Your task to perform on an android device: turn on wifi Image 0: 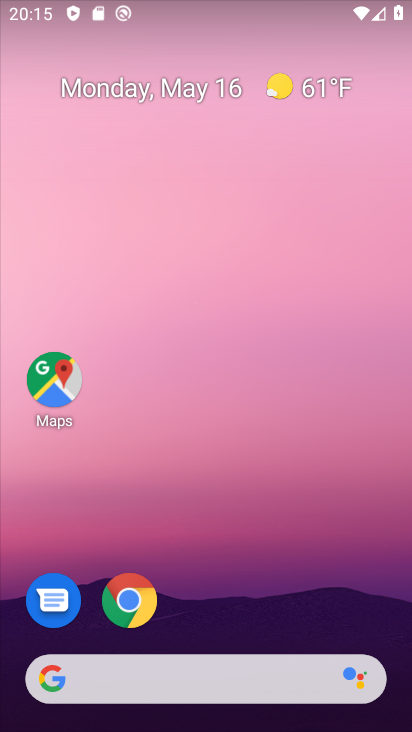
Step 0: drag from (191, 632) to (256, 161)
Your task to perform on an android device: turn on wifi Image 1: 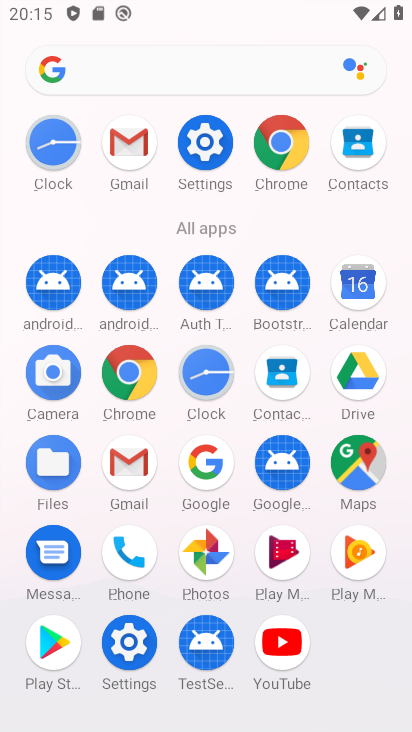
Step 1: click (135, 635)
Your task to perform on an android device: turn on wifi Image 2: 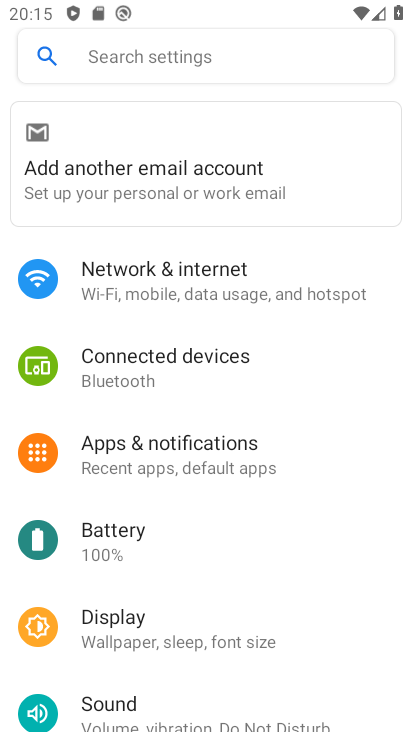
Step 2: click (190, 288)
Your task to perform on an android device: turn on wifi Image 3: 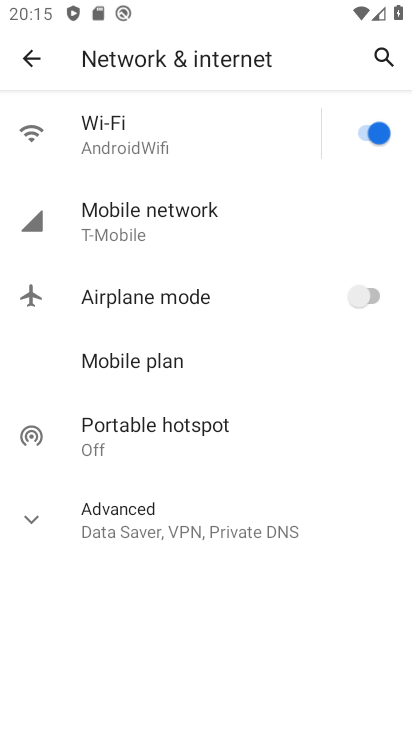
Step 3: task complete